Your task to perform on an android device: Show me productivity apps on the Play Store Image 0: 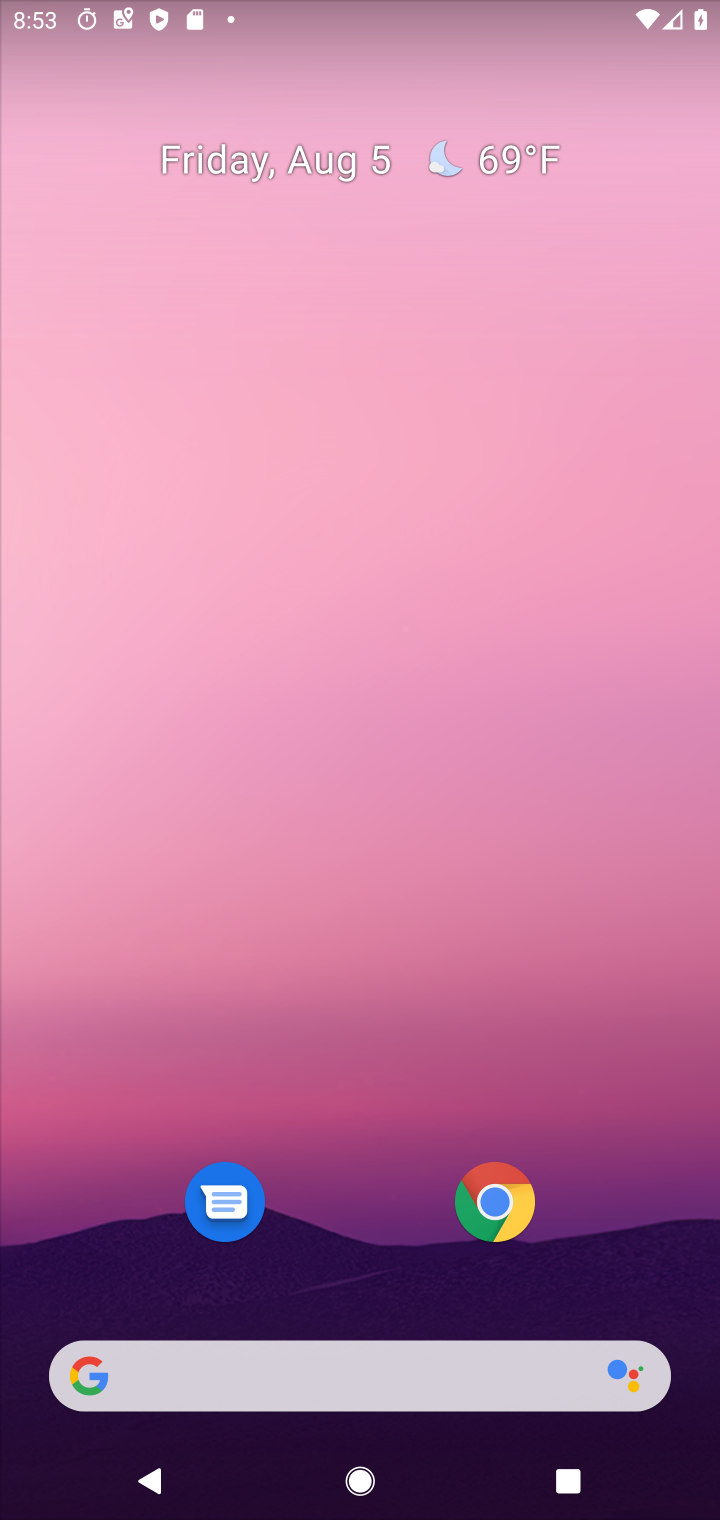
Step 0: drag from (337, 1072) to (337, 64)
Your task to perform on an android device: Show me productivity apps on the Play Store Image 1: 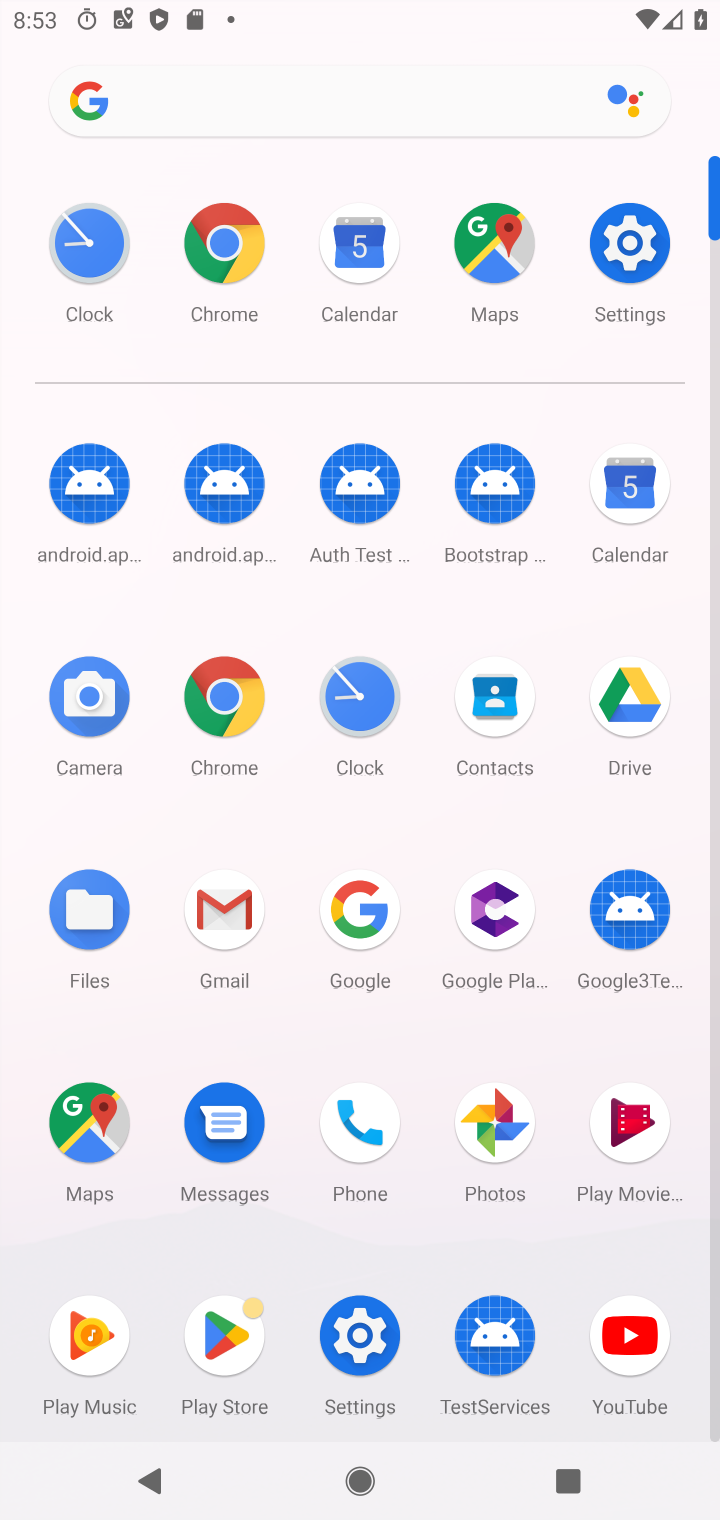
Step 1: click (232, 1331)
Your task to perform on an android device: Show me productivity apps on the Play Store Image 2: 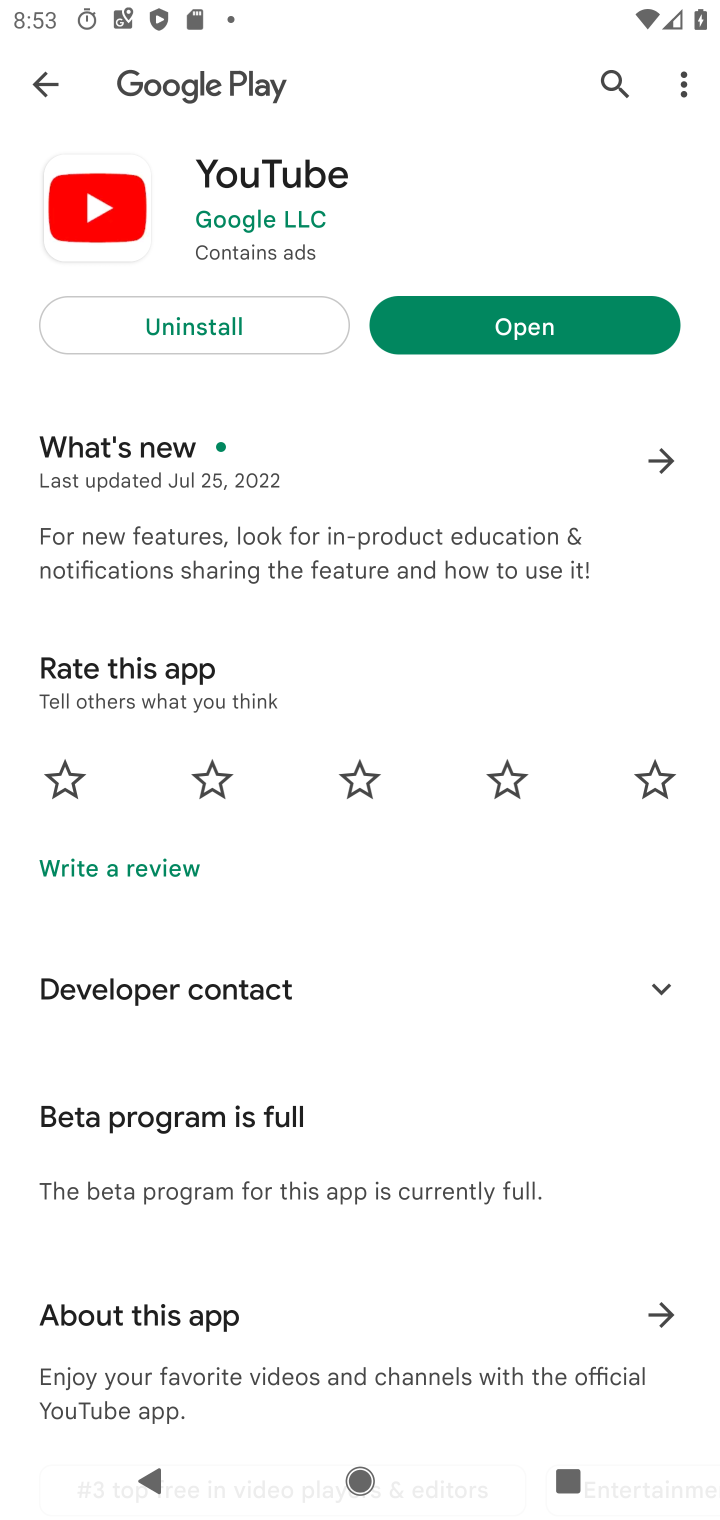
Step 2: click (57, 97)
Your task to perform on an android device: Show me productivity apps on the Play Store Image 3: 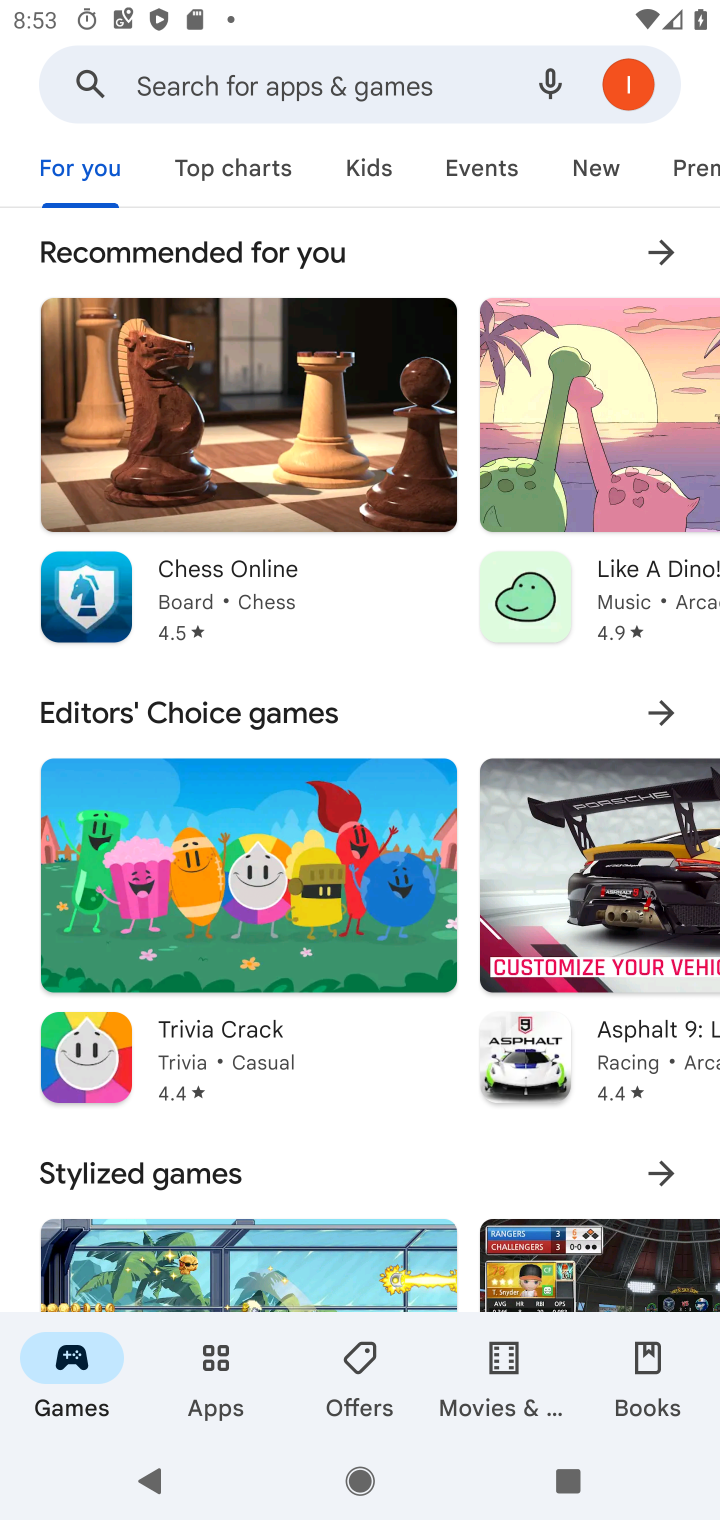
Step 3: click (207, 1380)
Your task to perform on an android device: Show me productivity apps on the Play Store Image 4: 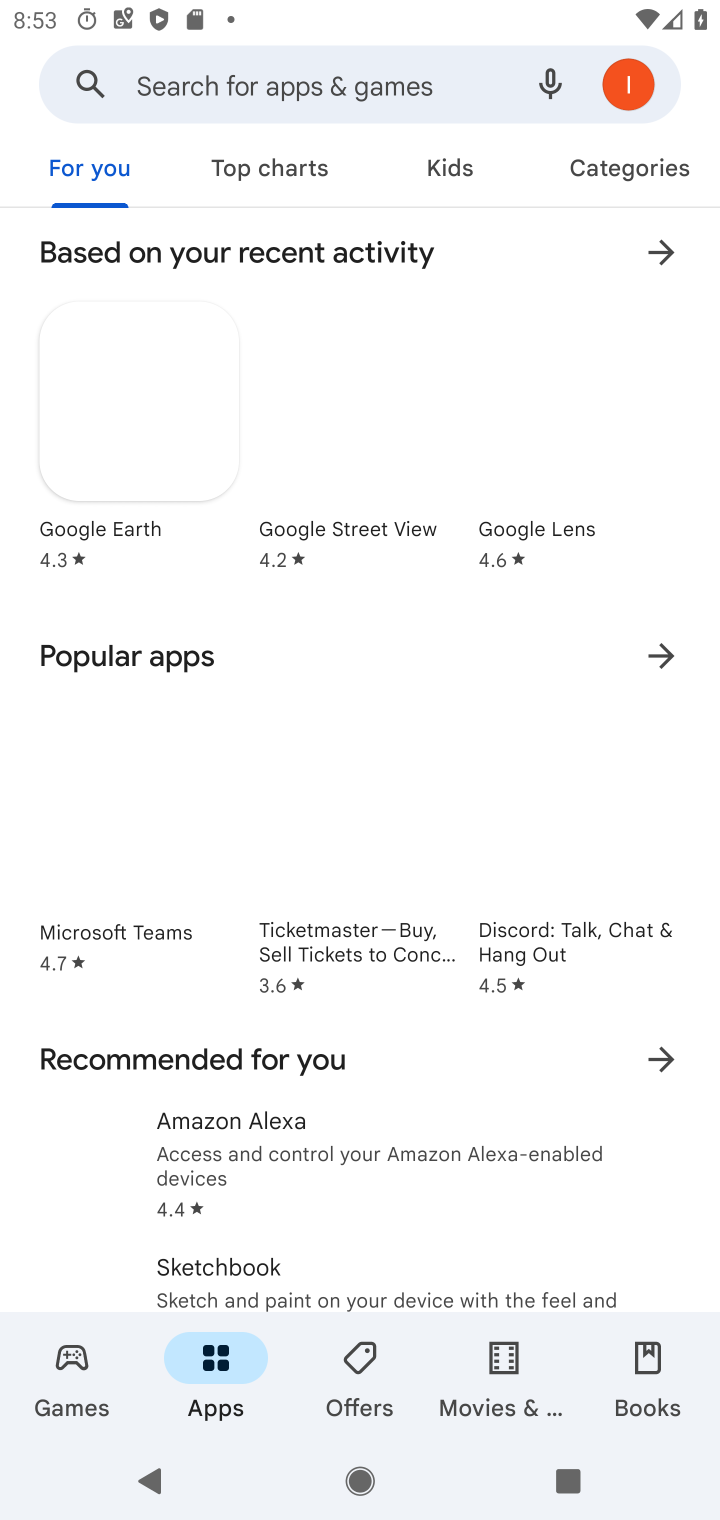
Step 4: click (651, 167)
Your task to perform on an android device: Show me productivity apps on the Play Store Image 5: 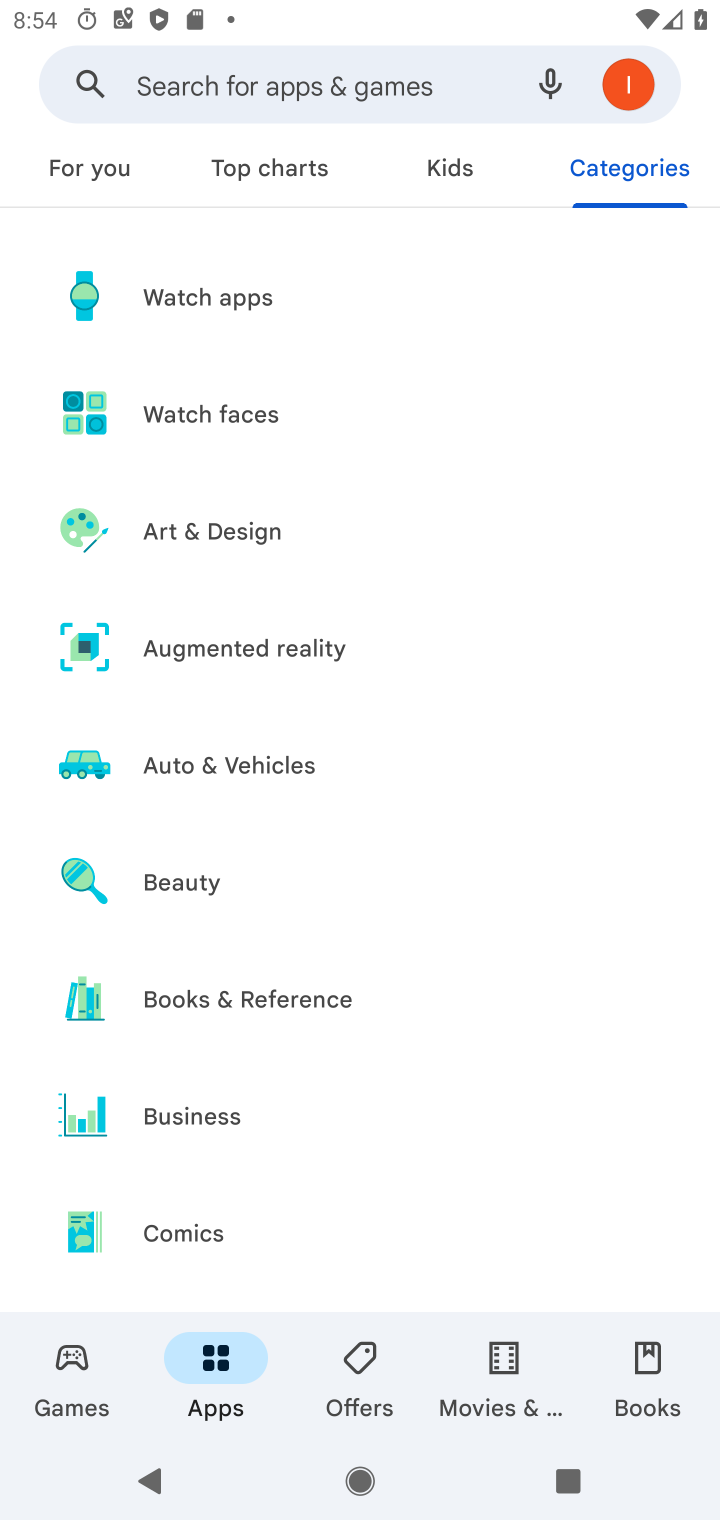
Step 5: drag from (313, 1233) to (362, 225)
Your task to perform on an android device: Show me productivity apps on the Play Store Image 6: 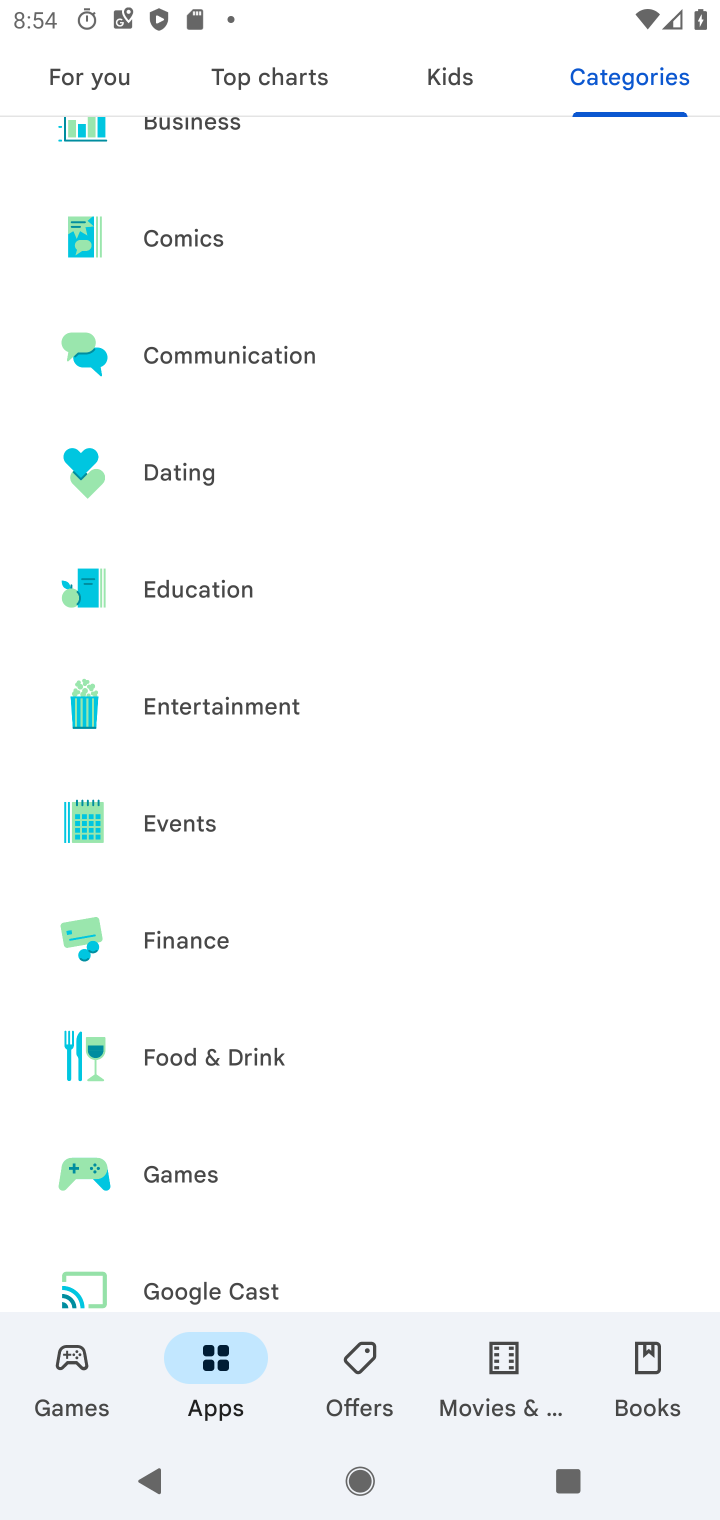
Step 6: drag from (313, 1070) to (347, 20)
Your task to perform on an android device: Show me productivity apps on the Play Store Image 7: 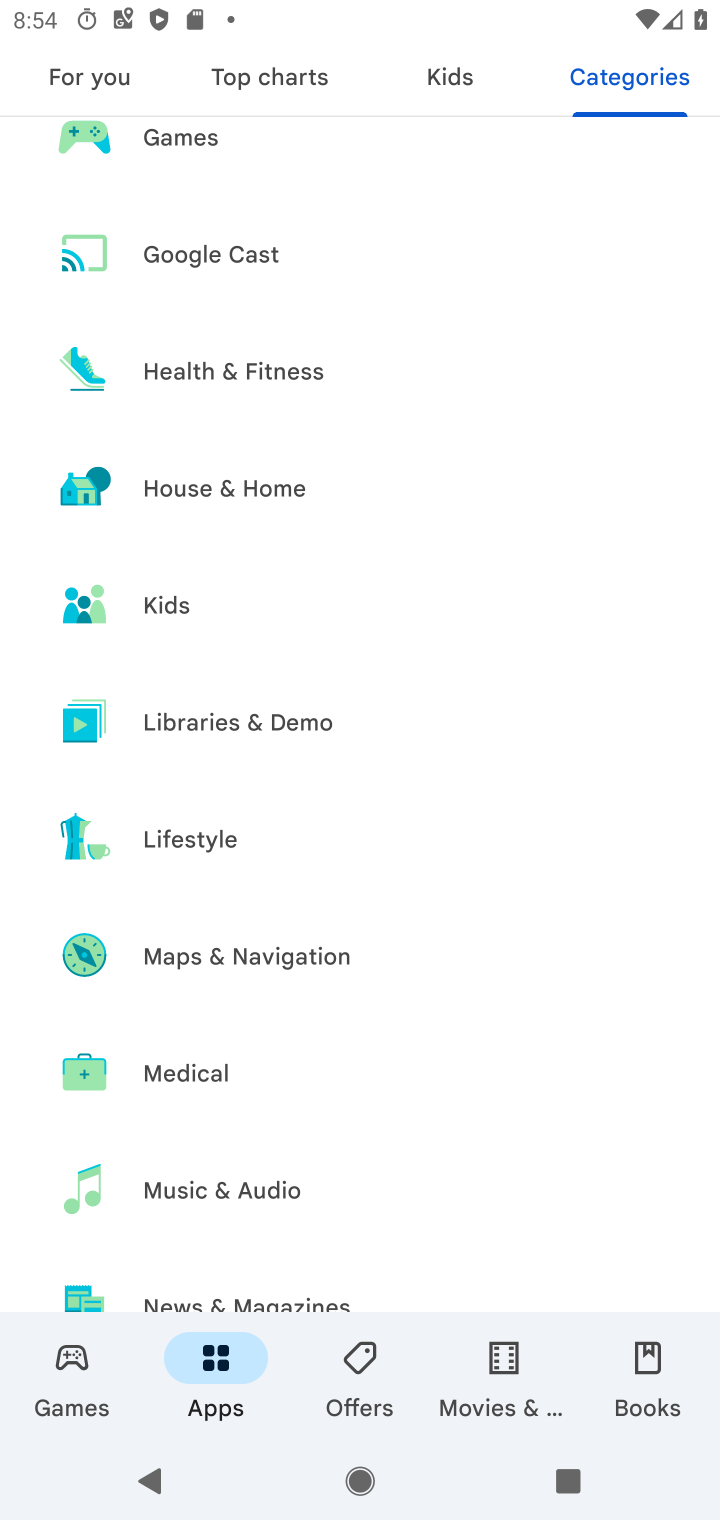
Step 7: drag from (334, 1194) to (327, 424)
Your task to perform on an android device: Show me productivity apps on the Play Store Image 8: 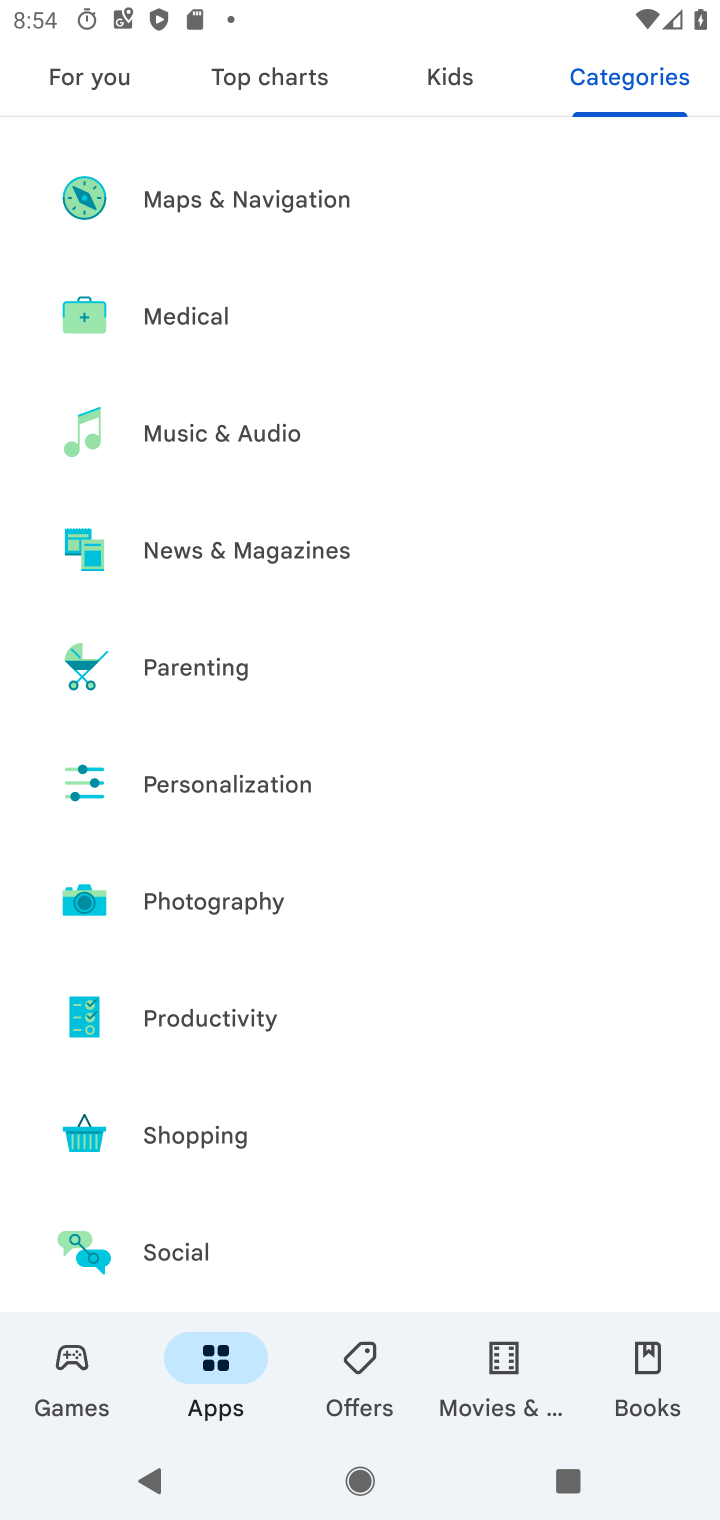
Step 8: click (232, 1038)
Your task to perform on an android device: Show me productivity apps on the Play Store Image 9: 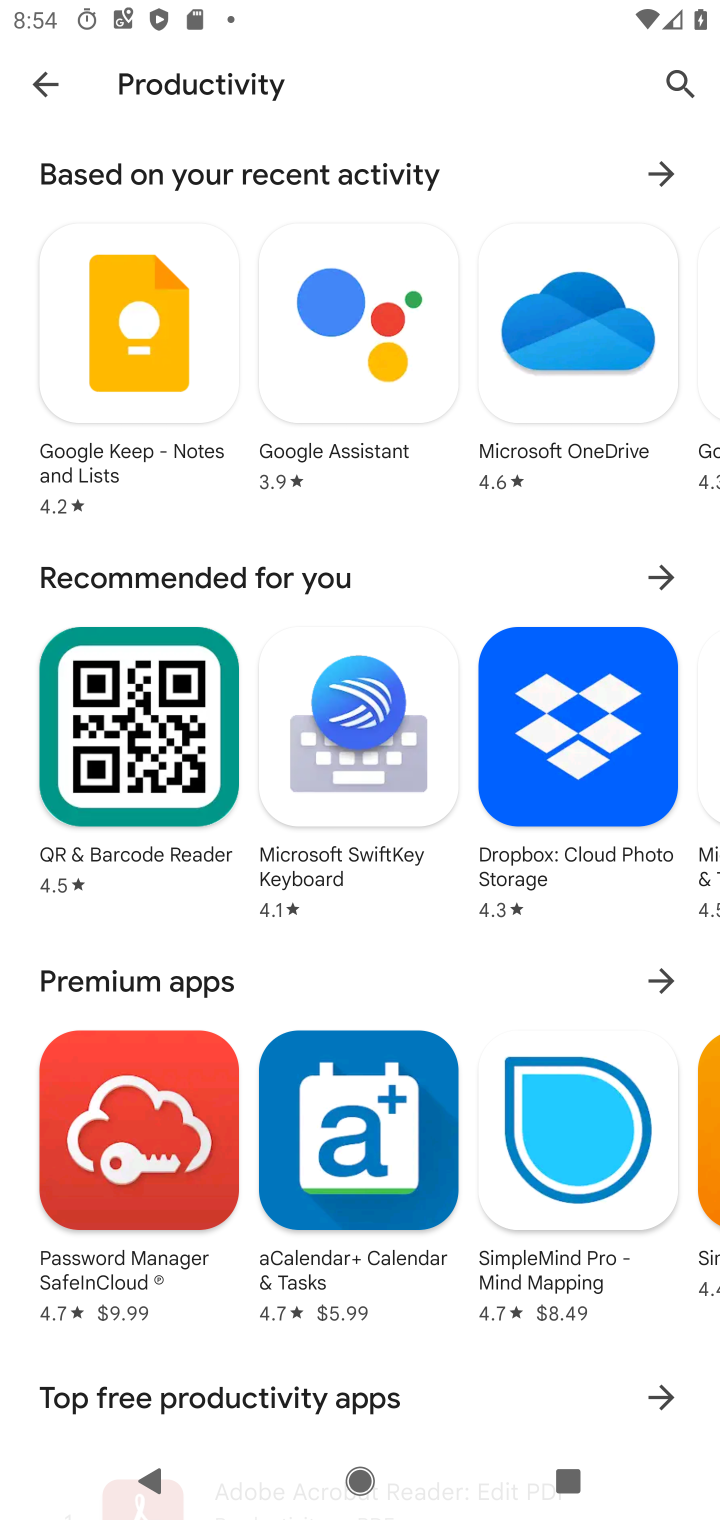
Step 9: task complete